Your task to perform on an android device: Set the phone to "Do not disturb". Image 0: 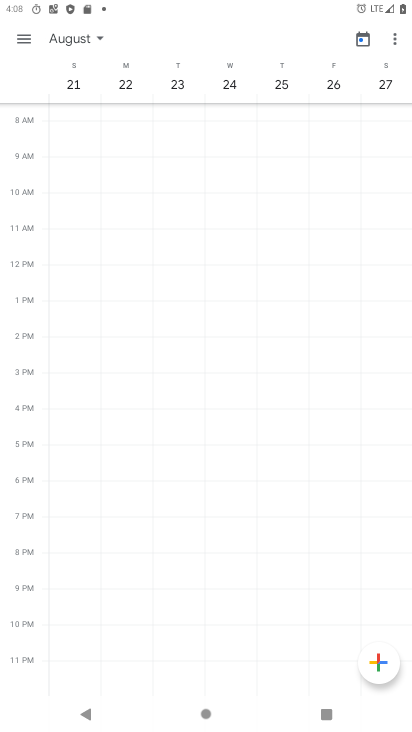
Step 0: press home button
Your task to perform on an android device: Set the phone to "Do not disturb". Image 1: 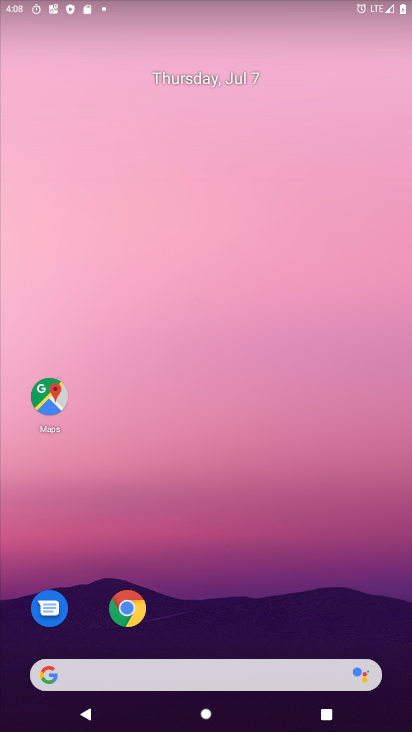
Step 1: drag from (250, 714) to (241, 116)
Your task to perform on an android device: Set the phone to "Do not disturb". Image 2: 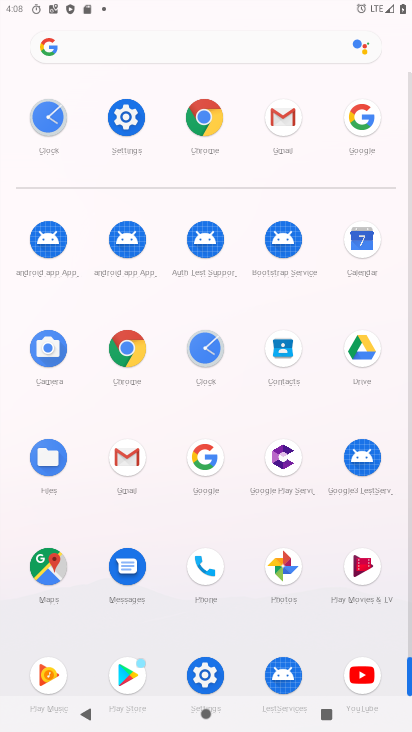
Step 2: click (123, 123)
Your task to perform on an android device: Set the phone to "Do not disturb". Image 3: 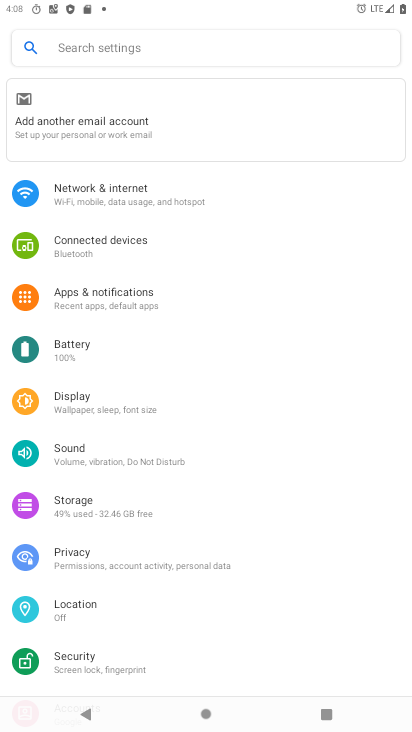
Step 3: click (88, 457)
Your task to perform on an android device: Set the phone to "Do not disturb". Image 4: 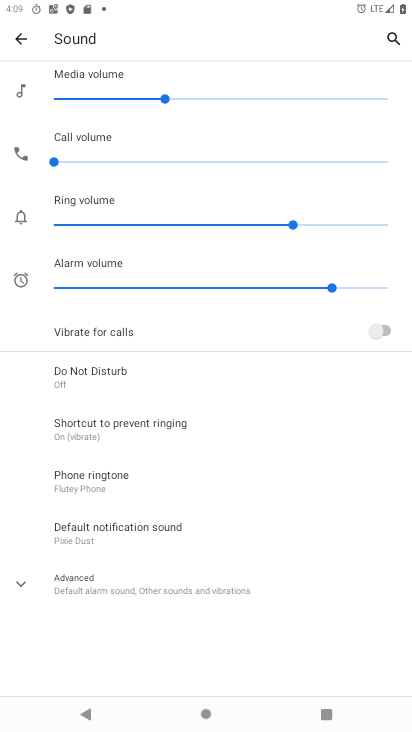
Step 4: click (77, 376)
Your task to perform on an android device: Set the phone to "Do not disturb". Image 5: 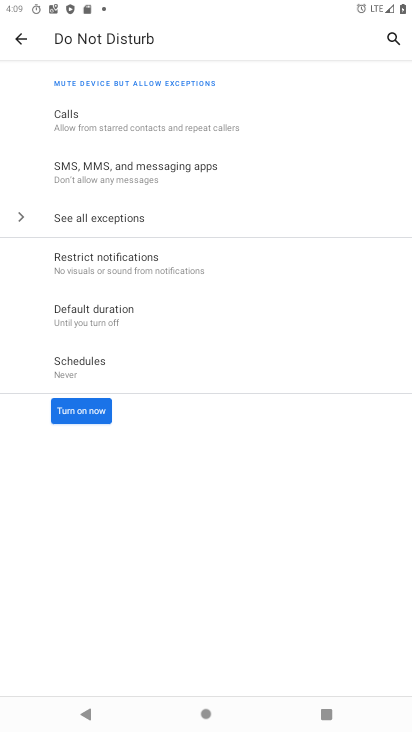
Step 5: click (81, 409)
Your task to perform on an android device: Set the phone to "Do not disturb". Image 6: 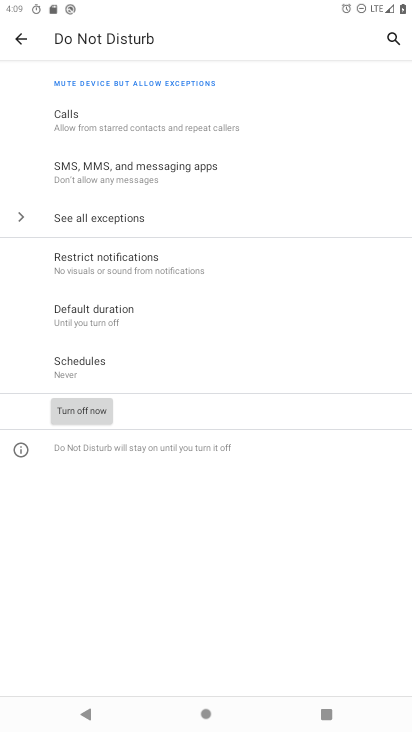
Step 6: task complete